Your task to perform on an android device: install app "Viber Messenger" Image 0: 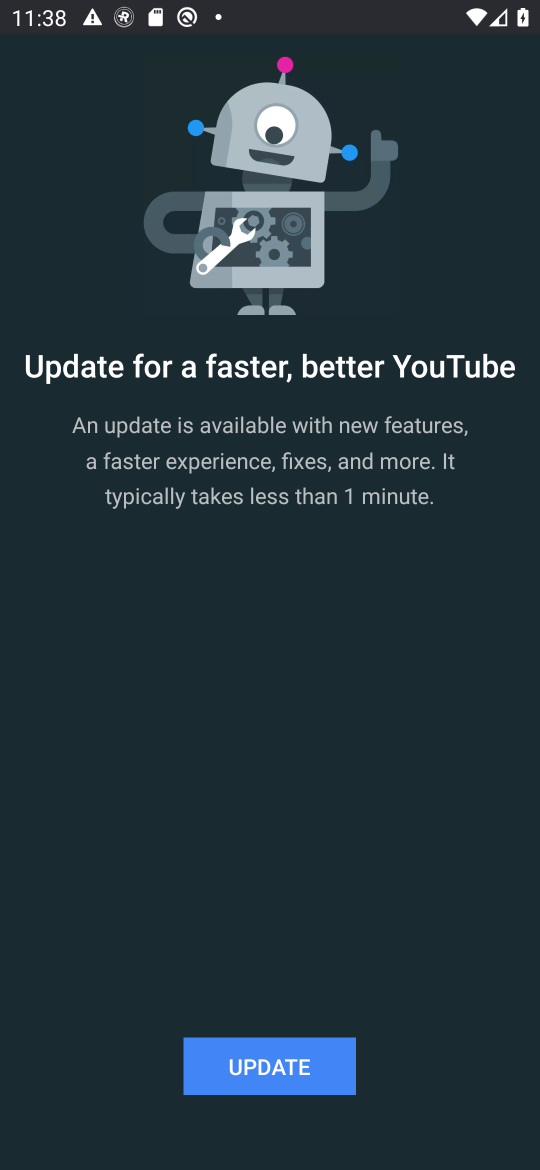
Step 0: press home button
Your task to perform on an android device: install app "Viber Messenger" Image 1: 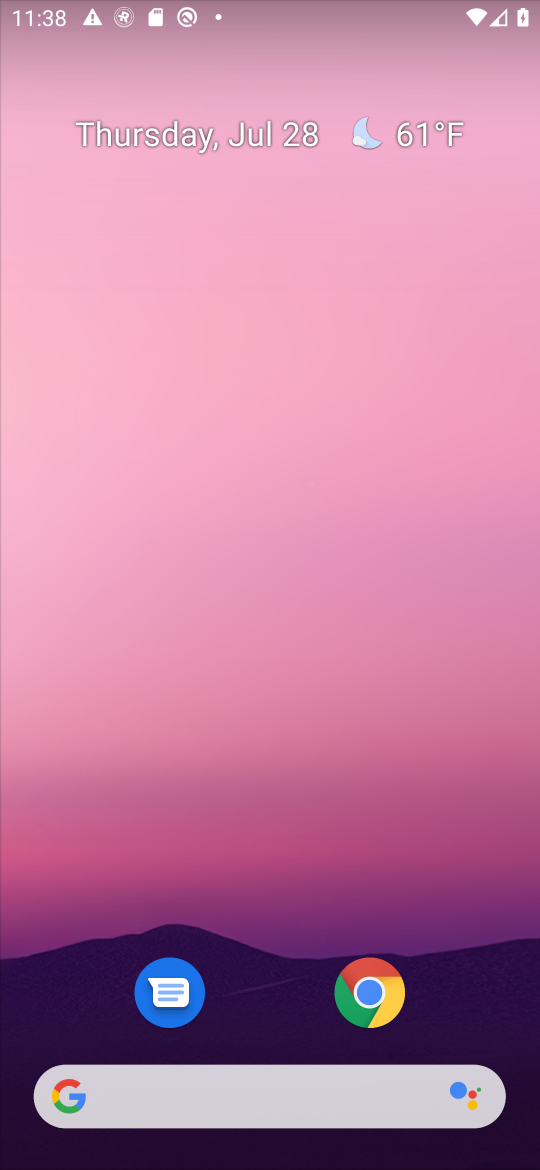
Step 1: drag from (222, 1091) to (297, 127)
Your task to perform on an android device: install app "Viber Messenger" Image 2: 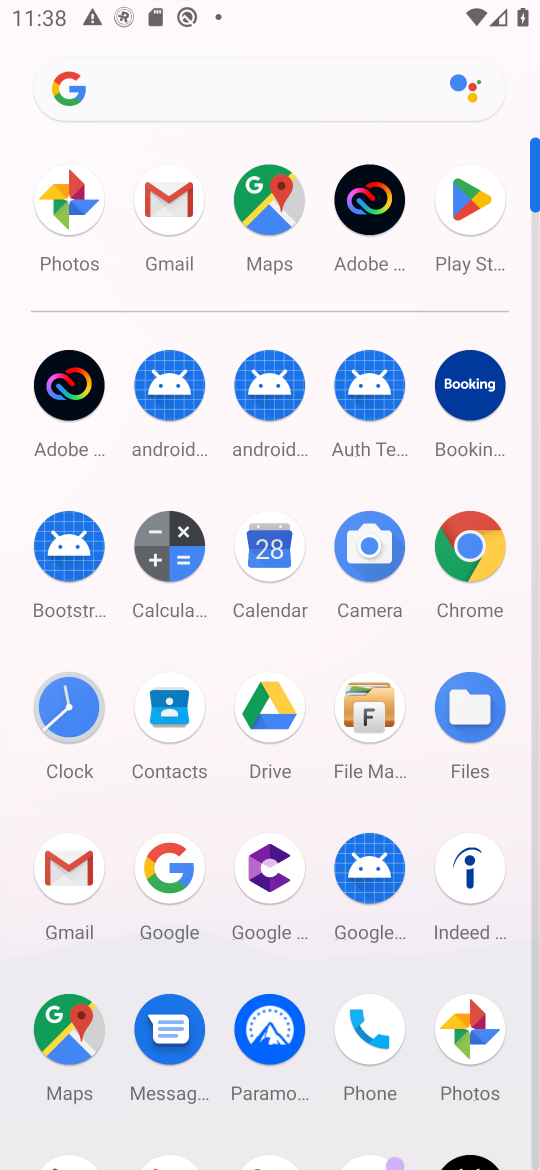
Step 2: click (466, 206)
Your task to perform on an android device: install app "Viber Messenger" Image 3: 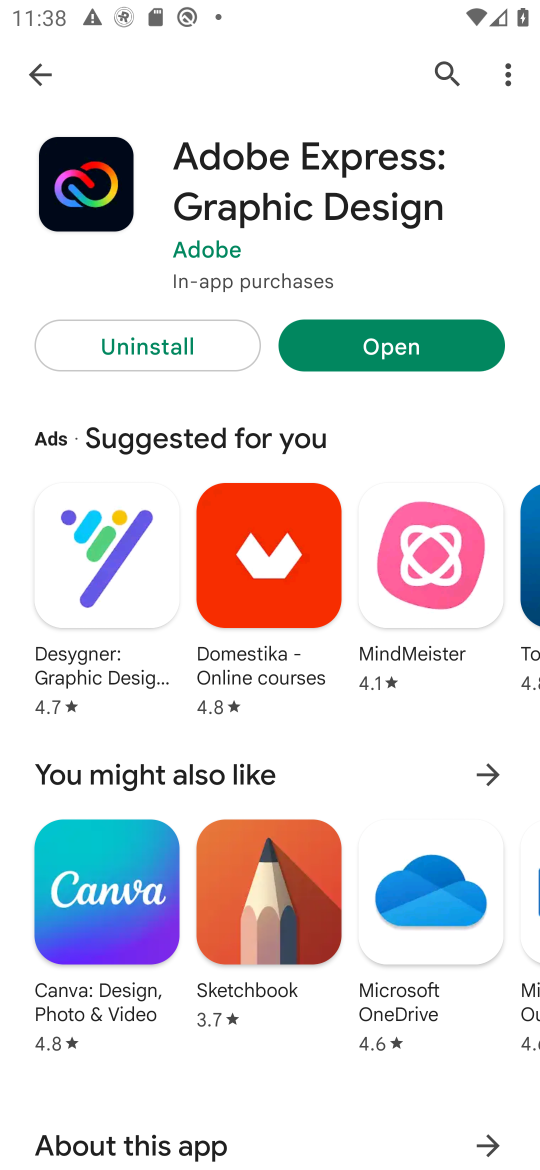
Step 3: click (446, 67)
Your task to perform on an android device: install app "Viber Messenger" Image 4: 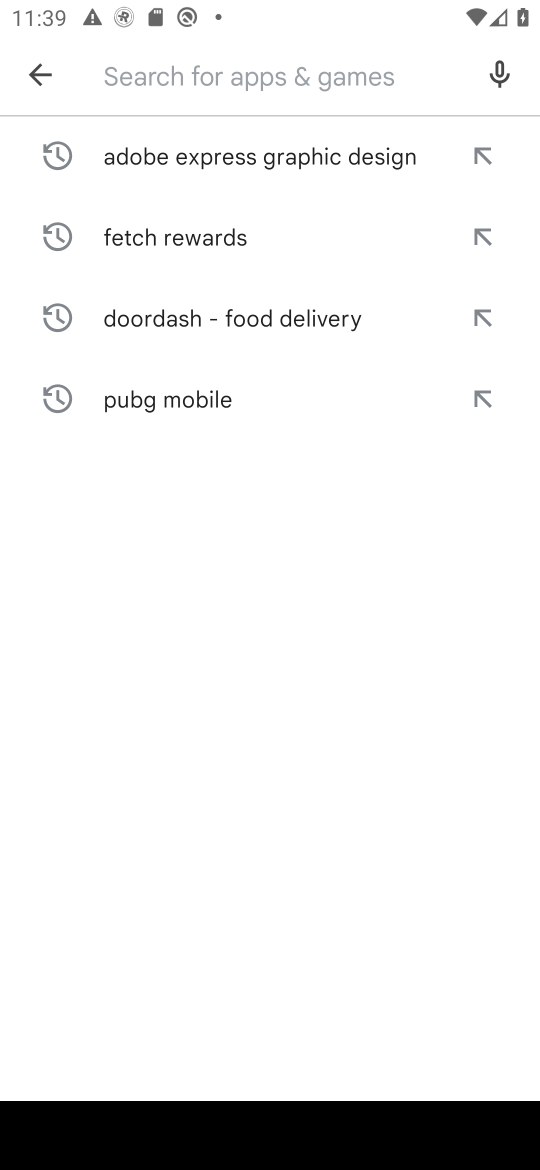
Step 4: type "Viber Messenger"
Your task to perform on an android device: install app "Viber Messenger" Image 5: 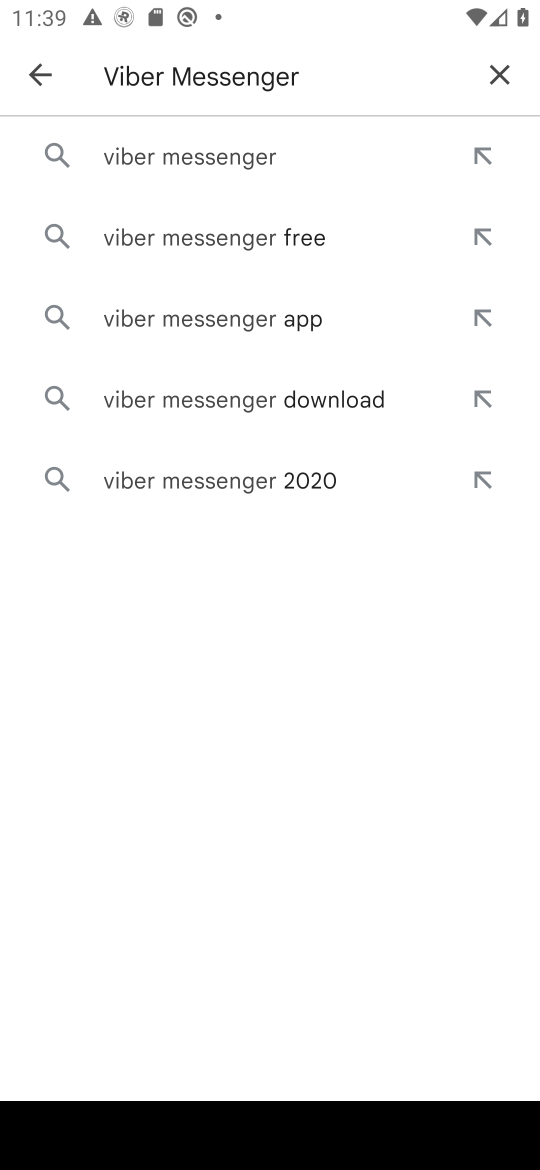
Step 5: click (238, 160)
Your task to perform on an android device: install app "Viber Messenger" Image 6: 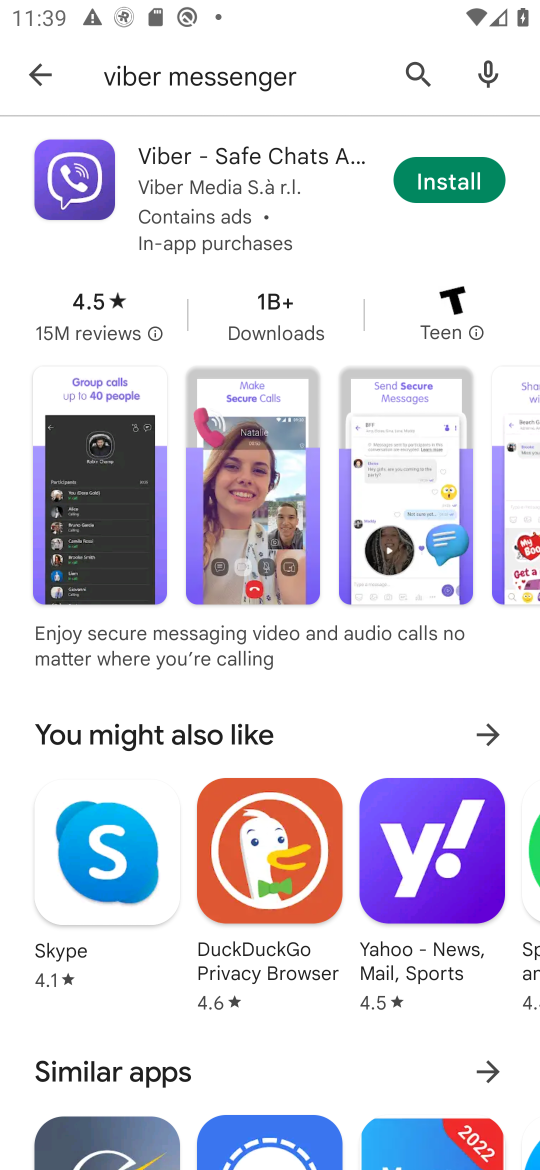
Step 6: click (223, 143)
Your task to perform on an android device: install app "Viber Messenger" Image 7: 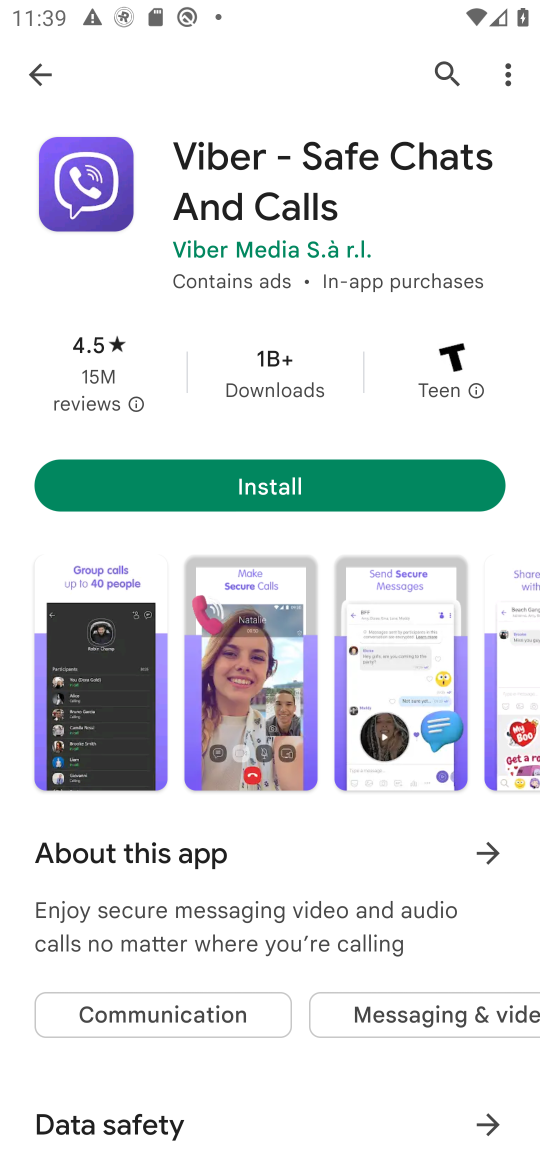
Step 7: click (287, 492)
Your task to perform on an android device: install app "Viber Messenger" Image 8: 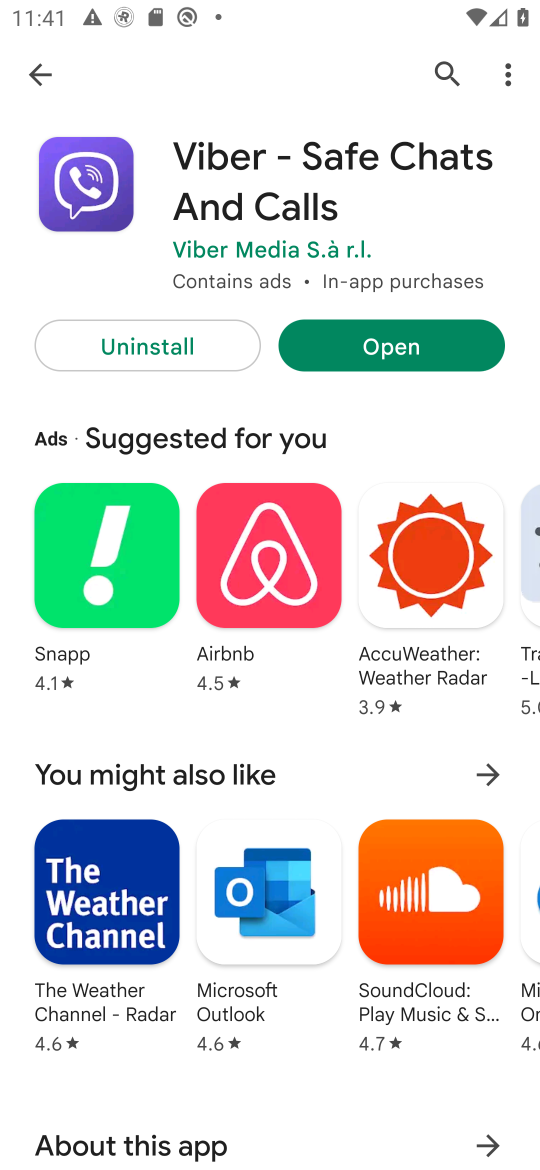
Step 8: task complete